Your task to perform on an android device: delete a single message in the gmail app Image 0: 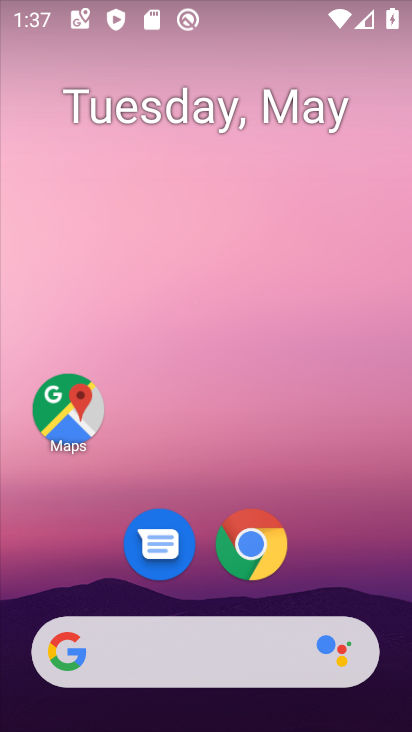
Step 0: drag from (280, 585) to (344, 28)
Your task to perform on an android device: delete a single message in the gmail app Image 1: 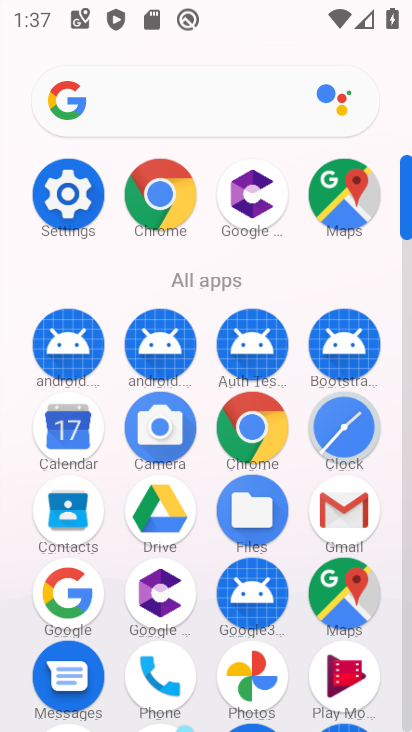
Step 1: click (343, 513)
Your task to perform on an android device: delete a single message in the gmail app Image 2: 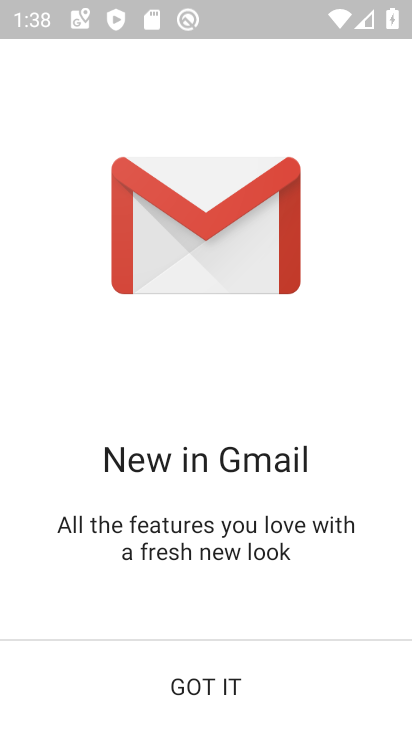
Step 2: click (278, 659)
Your task to perform on an android device: delete a single message in the gmail app Image 3: 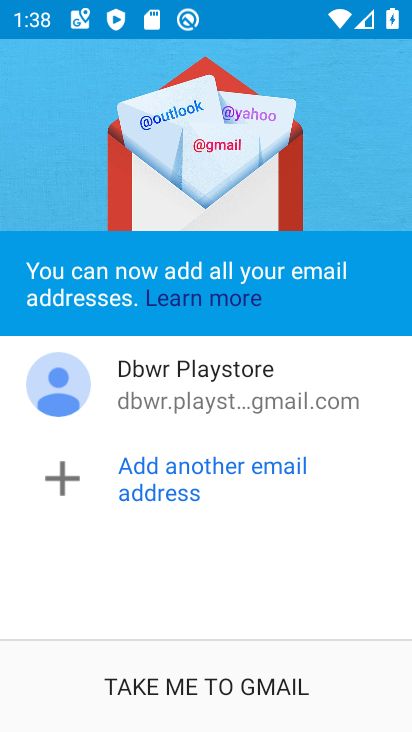
Step 3: click (175, 666)
Your task to perform on an android device: delete a single message in the gmail app Image 4: 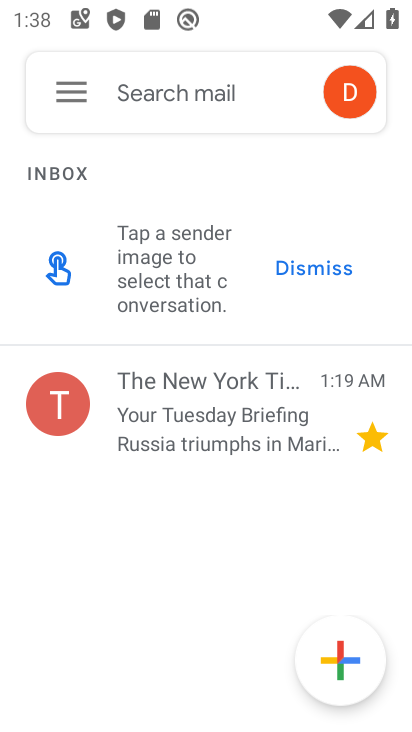
Step 4: click (215, 423)
Your task to perform on an android device: delete a single message in the gmail app Image 5: 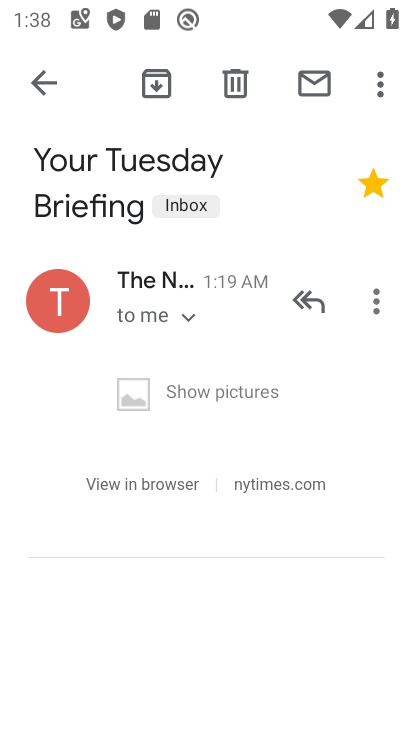
Step 5: click (246, 66)
Your task to perform on an android device: delete a single message in the gmail app Image 6: 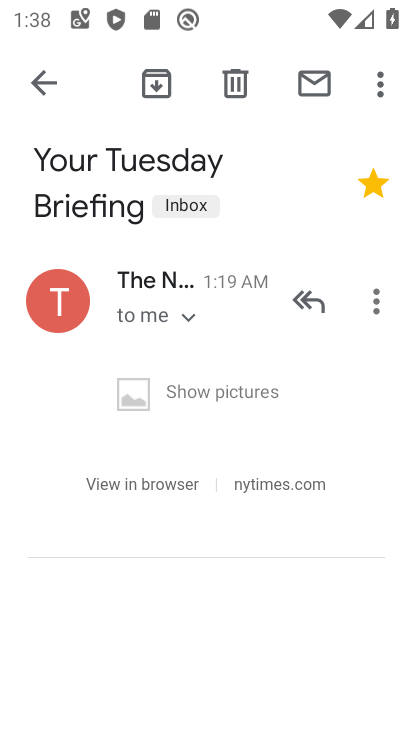
Step 6: click (242, 80)
Your task to perform on an android device: delete a single message in the gmail app Image 7: 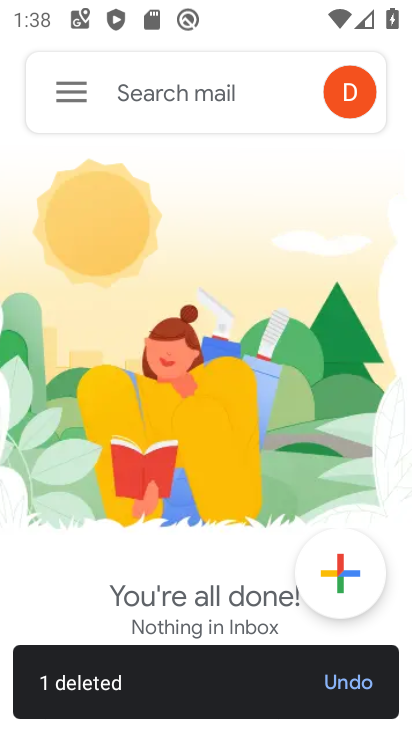
Step 7: task complete